Your task to perform on an android device: Open ESPN.com Image 0: 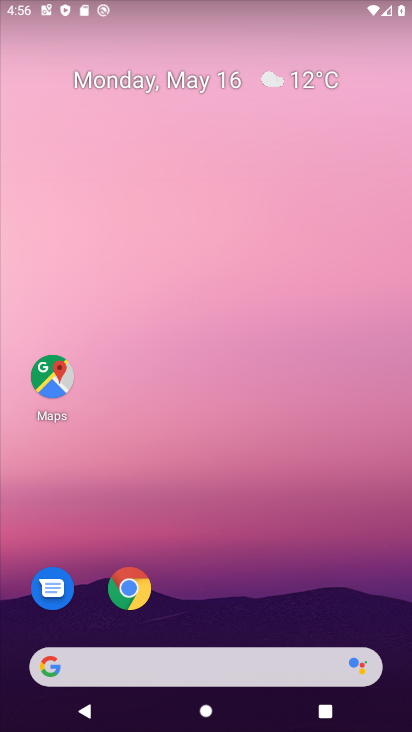
Step 0: click (125, 588)
Your task to perform on an android device: Open ESPN.com Image 1: 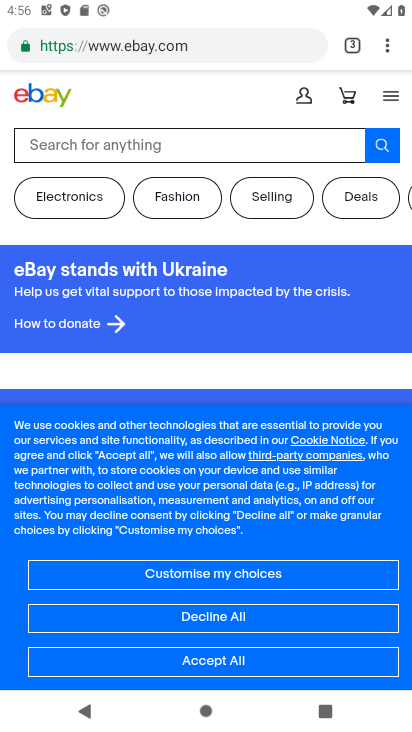
Step 1: click (354, 48)
Your task to perform on an android device: Open ESPN.com Image 2: 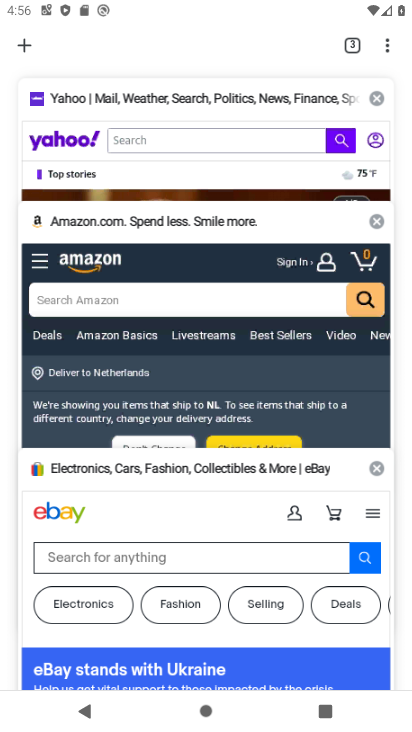
Step 2: click (26, 39)
Your task to perform on an android device: Open ESPN.com Image 3: 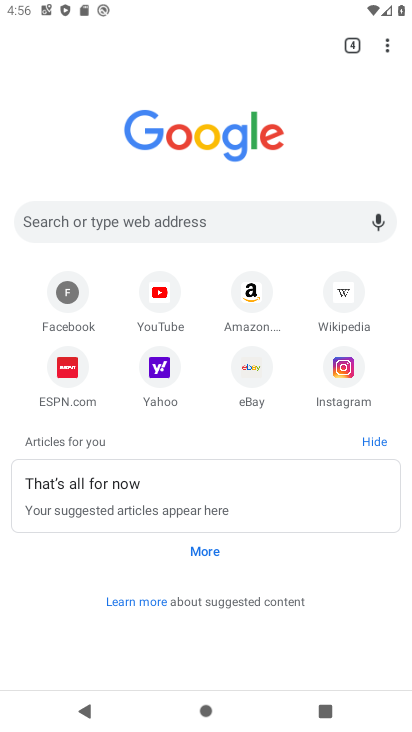
Step 3: click (55, 378)
Your task to perform on an android device: Open ESPN.com Image 4: 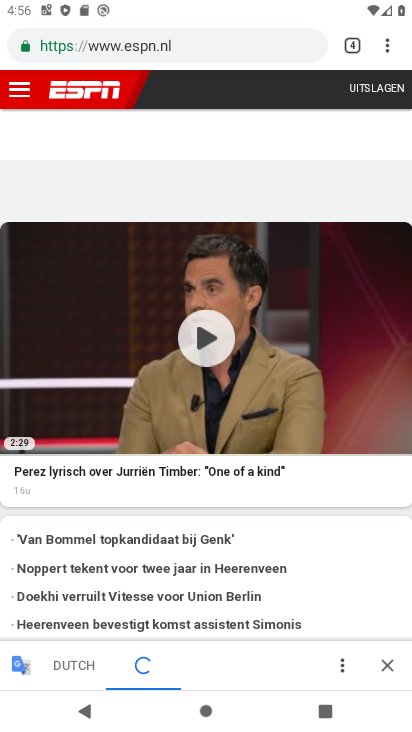
Step 4: task complete